Your task to perform on an android device: toggle javascript in the chrome app Image 0: 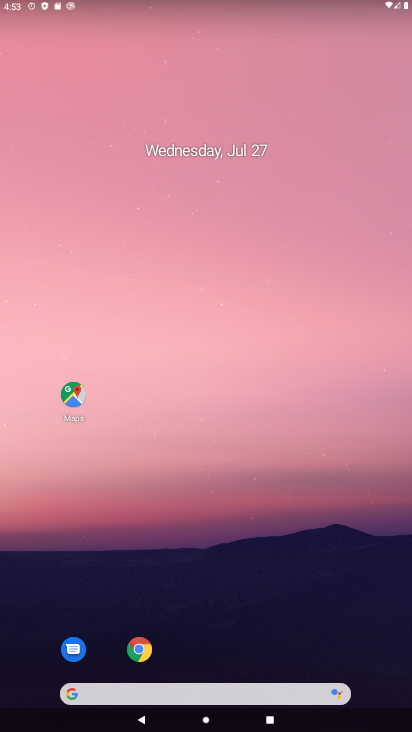
Step 0: click (141, 648)
Your task to perform on an android device: toggle javascript in the chrome app Image 1: 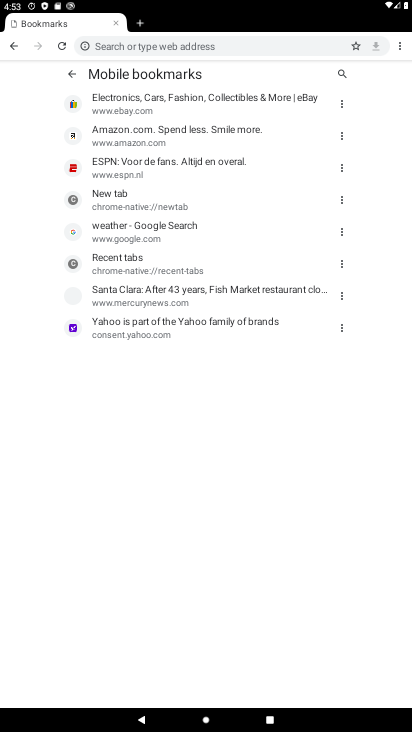
Step 1: click (401, 46)
Your task to perform on an android device: toggle javascript in the chrome app Image 2: 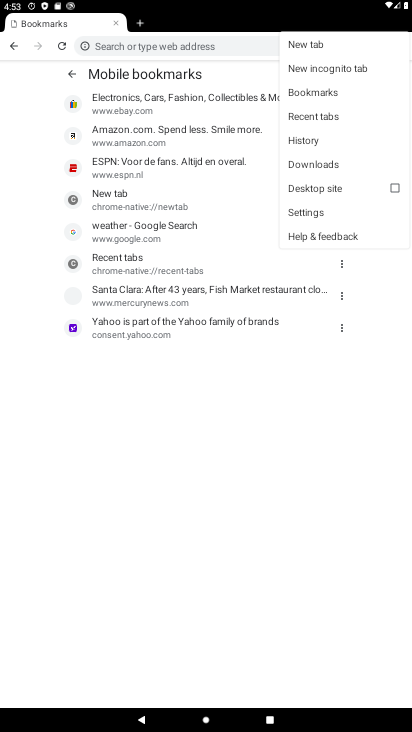
Step 2: click (314, 212)
Your task to perform on an android device: toggle javascript in the chrome app Image 3: 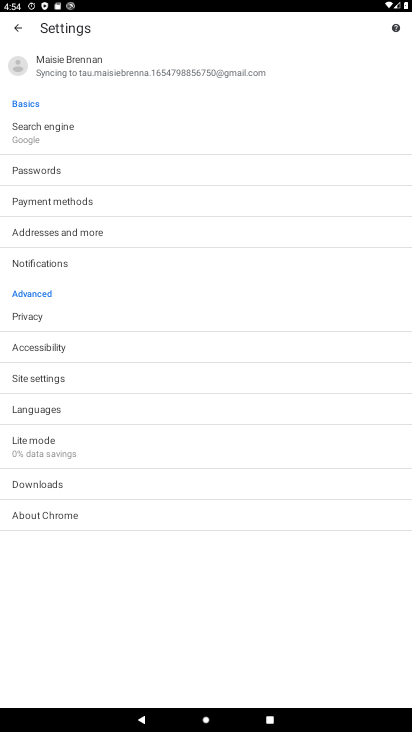
Step 3: click (55, 373)
Your task to perform on an android device: toggle javascript in the chrome app Image 4: 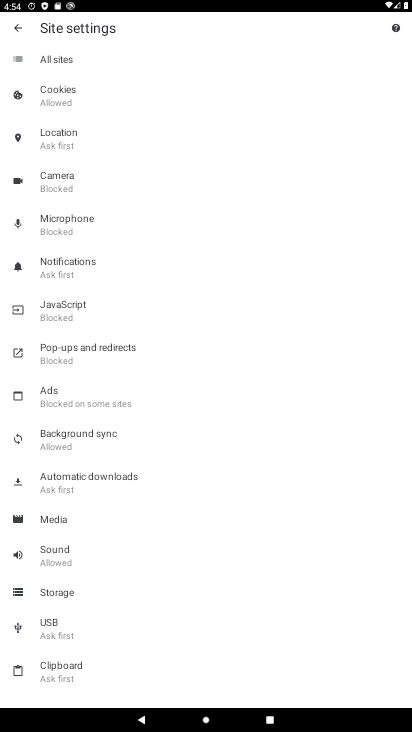
Step 4: click (72, 306)
Your task to perform on an android device: toggle javascript in the chrome app Image 5: 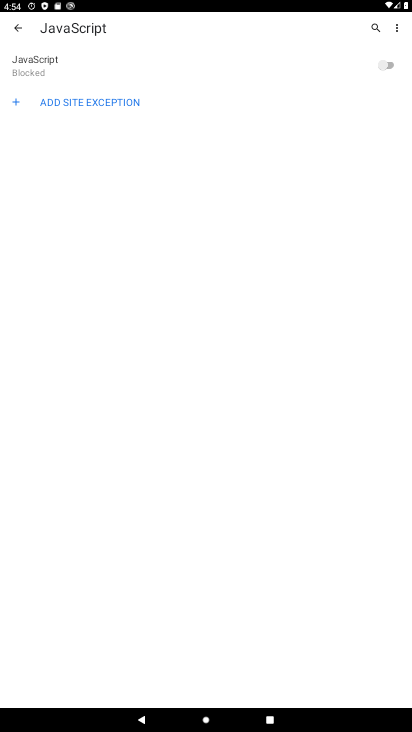
Step 5: click (382, 63)
Your task to perform on an android device: toggle javascript in the chrome app Image 6: 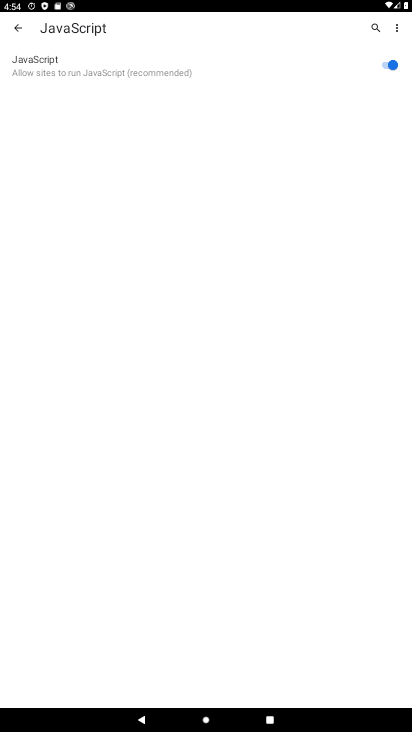
Step 6: task complete